Your task to perform on an android device: Go to notification settings Image 0: 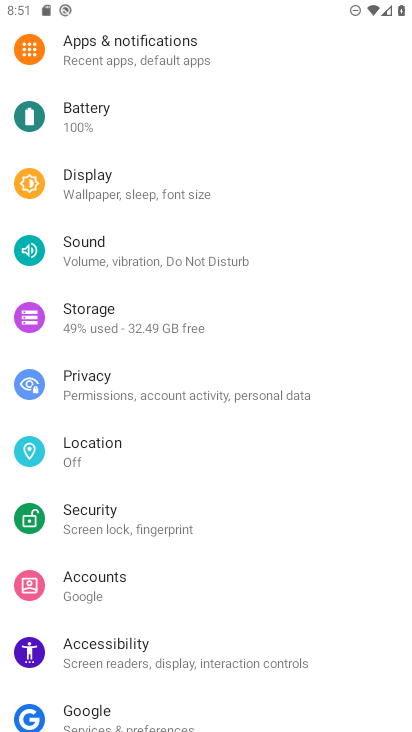
Step 0: press home button
Your task to perform on an android device: Go to notification settings Image 1: 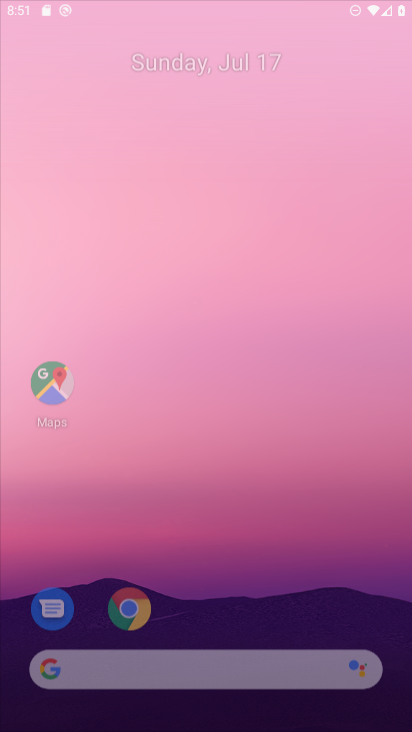
Step 1: drag from (350, 674) to (226, 36)
Your task to perform on an android device: Go to notification settings Image 2: 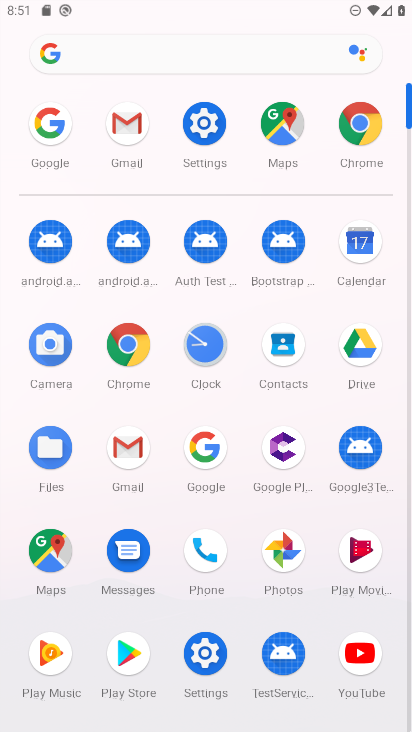
Step 2: click (207, 656)
Your task to perform on an android device: Go to notification settings Image 3: 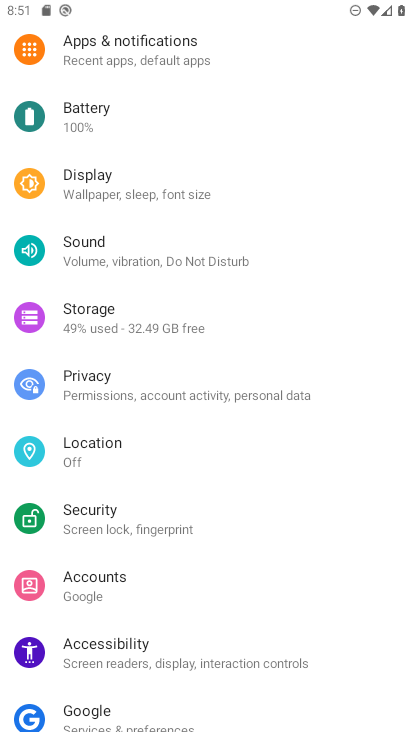
Step 3: click (149, 68)
Your task to perform on an android device: Go to notification settings Image 4: 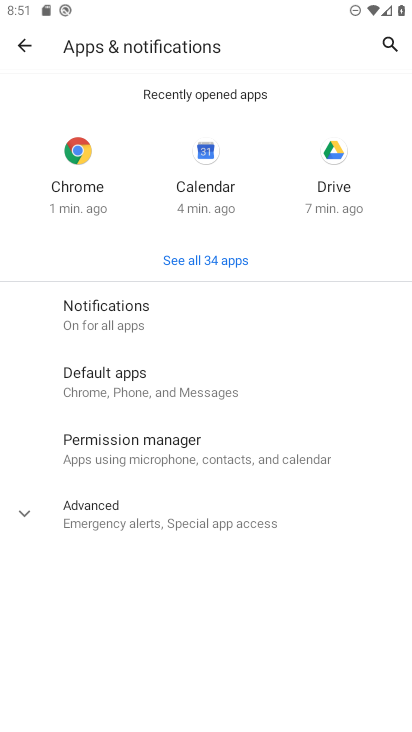
Step 4: click (123, 308)
Your task to perform on an android device: Go to notification settings Image 5: 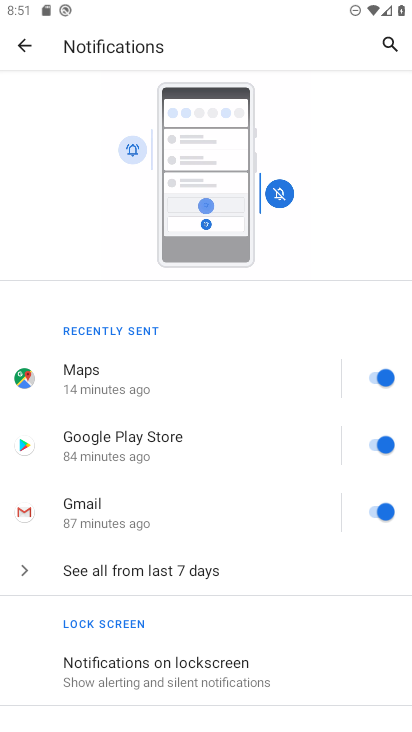
Step 5: task complete